Your task to perform on an android device: Open calendar and show me the second week of next month Image 0: 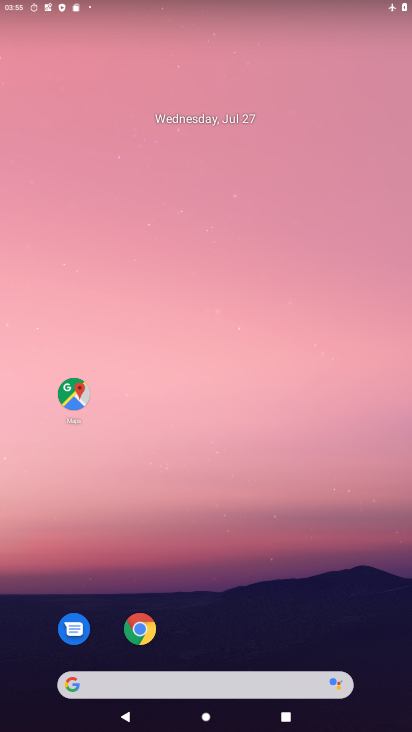
Step 0: drag from (281, 598) to (245, 62)
Your task to perform on an android device: Open calendar and show me the second week of next month Image 1: 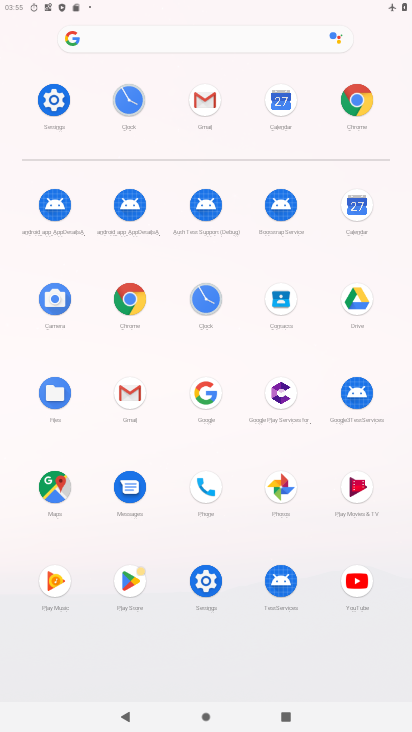
Step 1: click (352, 204)
Your task to perform on an android device: Open calendar and show me the second week of next month Image 2: 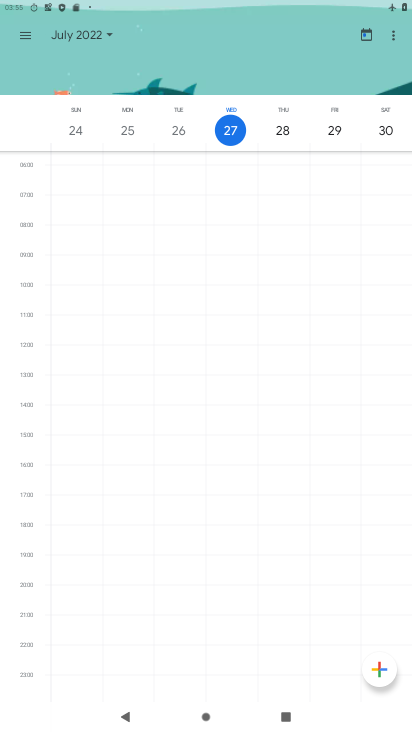
Step 2: click (27, 40)
Your task to perform on an android device: Open calendar and show me the second week of next month Image 3: 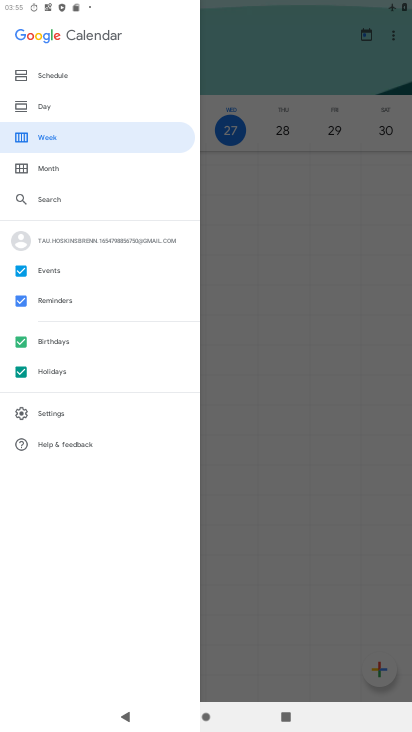
Step 3: click (327, 209)
Your task to perform on an android device: Open calendar and show me the second week of next month Image 4: 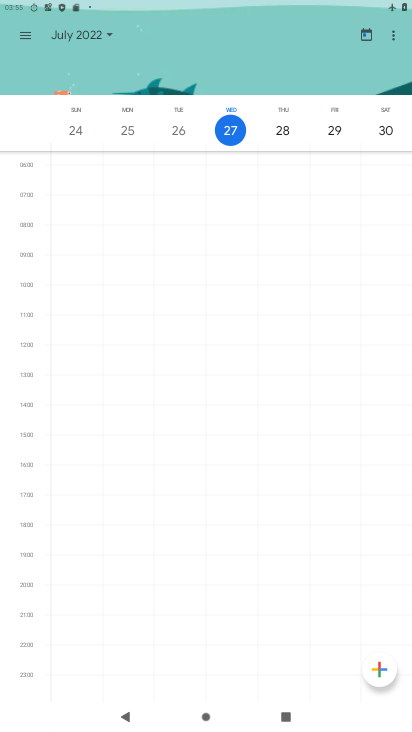
Step 4: click (99, 37)
Your task to perform on an android device: Open calendar and show me the second week of next month Image 5: 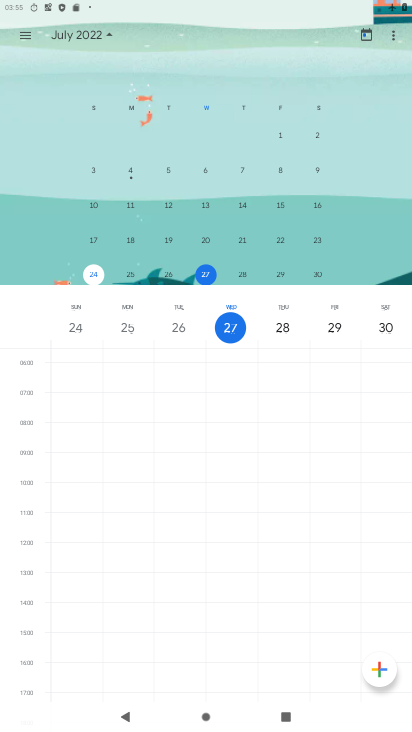
Step 5: drag from (380, 143) to (23, 176)
Your task to perform on an android device: Open calendar and show me the second week of next month Image 6: 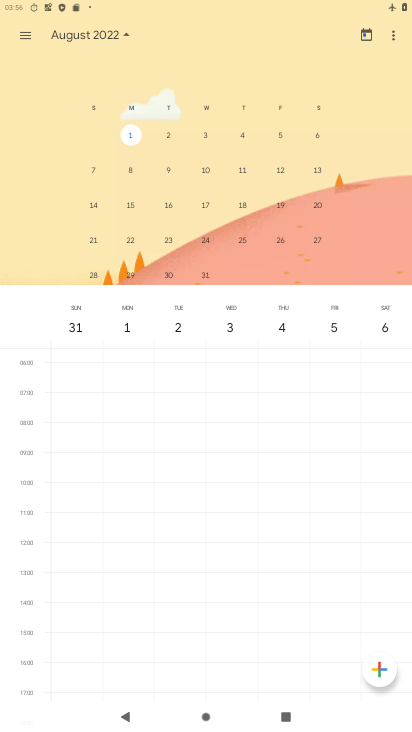
Step 6: click (161, 170)
Your task to perform on an android device: Open calendar and show me the second week of next month Image 7: 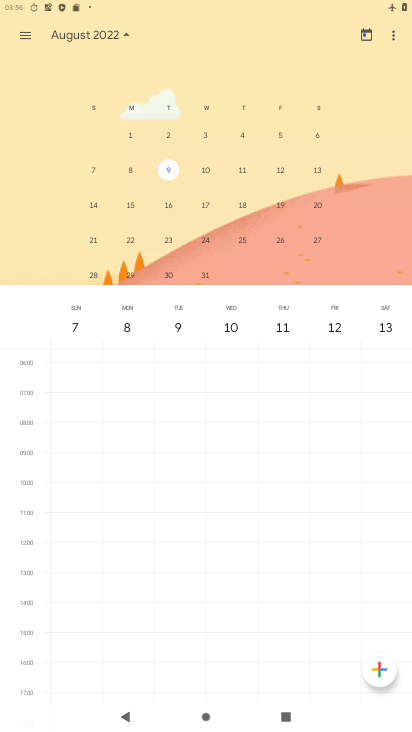
Step 7: task complete